Your task to perform on an android device: delete location history Image 0: 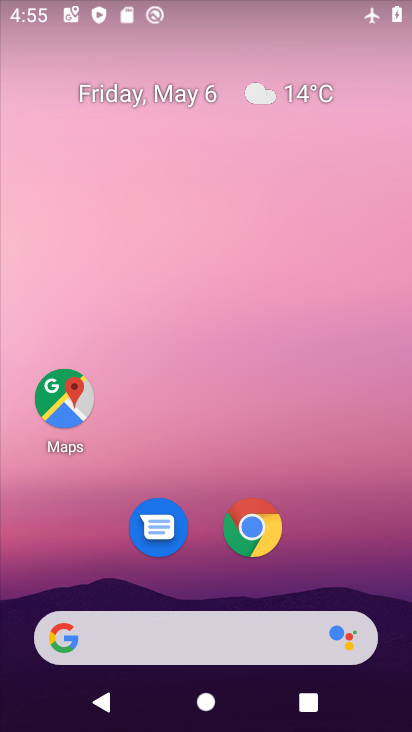
Step 0: drag from (211, 727) to (212, 124)
Your task to perform on an android device: delete location history Image 1: 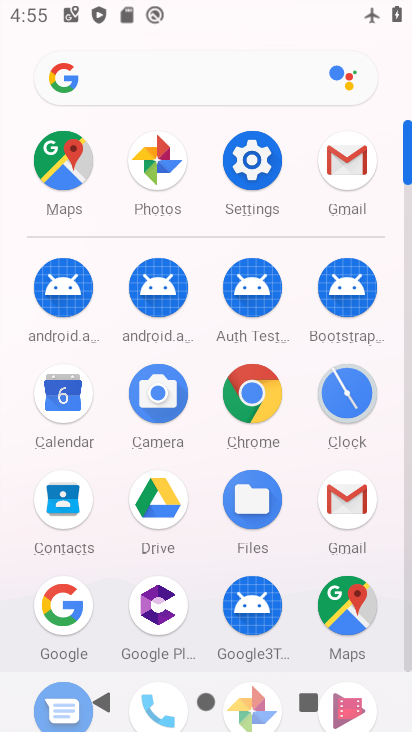
Step 1: click (342, 594)
Your task to perform on an android device: delete location history Image 2: 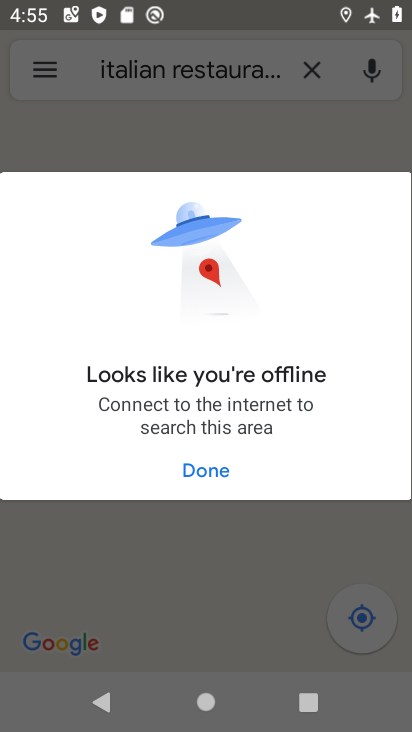
Step 2: click (207, 467)
Your task to perform on an android device: delete location history Image 3: 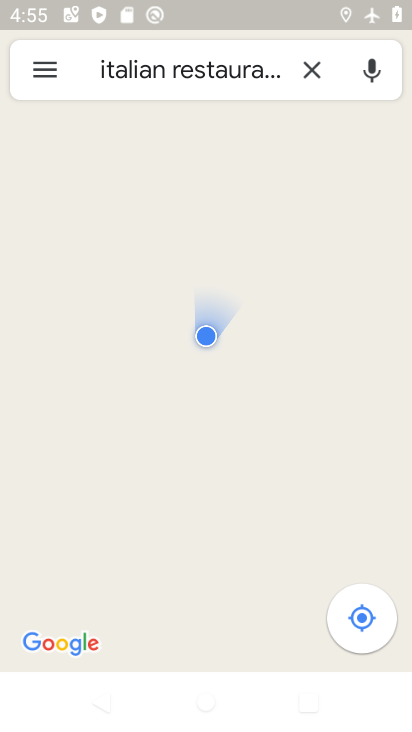
Step 3: click (47, 69)
Your task to perform on an android device: delete location history Image 4: 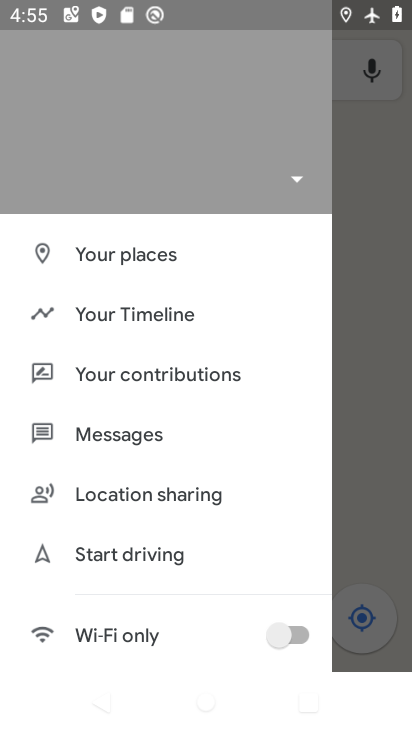
Step 4: click (135, 308)
Your task to perform on an android device: delete location history Image 5: 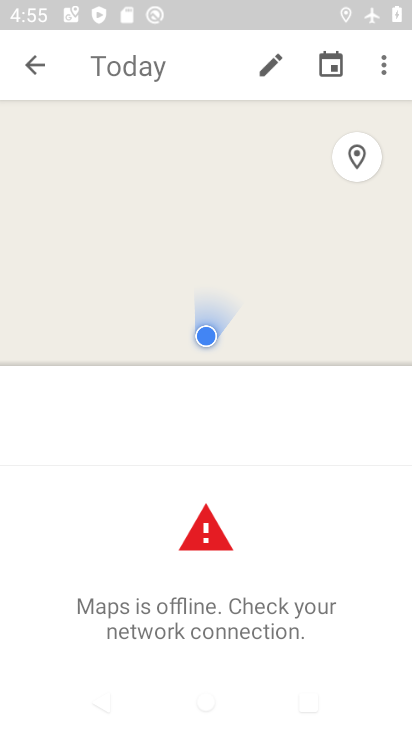
Step 5: click (383, 64)
Your task to perform on an android device: delete location history Image 6: 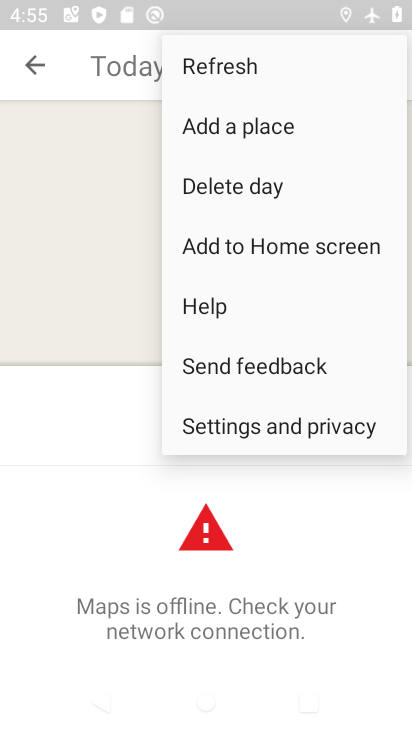
Step 6: click (243, 421)
Your task to perform on an android device: delete location history Image 7: 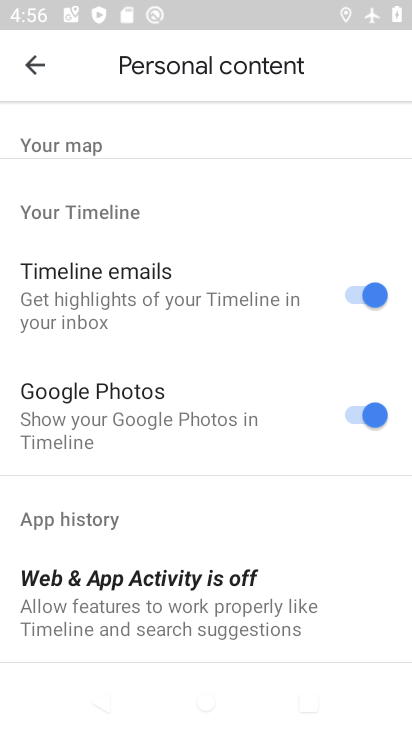
Step 7: drag from (165, 612) to (160, 239)
Your task to perform on an android device: delete location history Image 8: 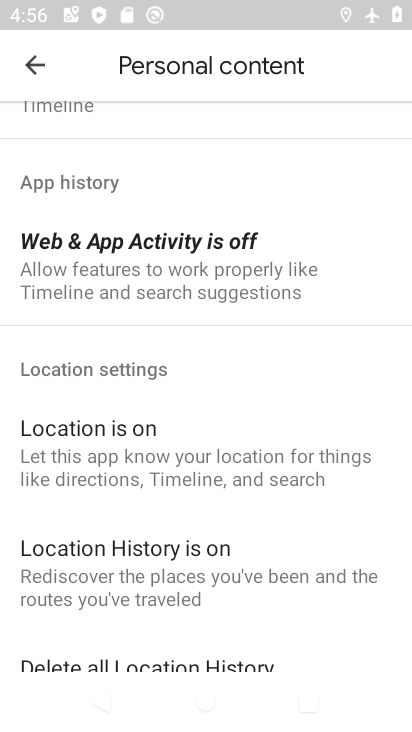
Step 8: drag from (161, 618) to (146, 381)
Your task to perform on an android device: delete location history Image 9: 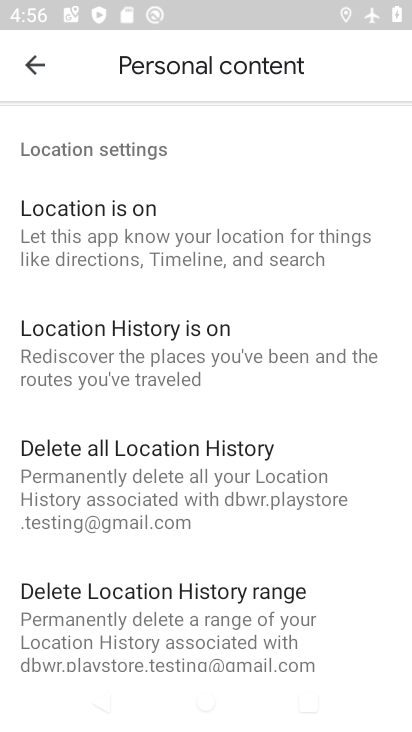
Step 9: click (141, 469)
Your task to perform on an android device: delete location history Image 10: 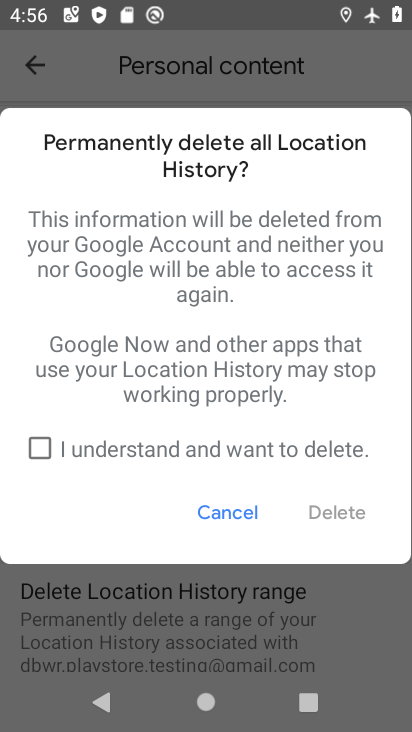
Step 10: click (43, 444)
Your task to perform on an android device: delete location history Image 11: 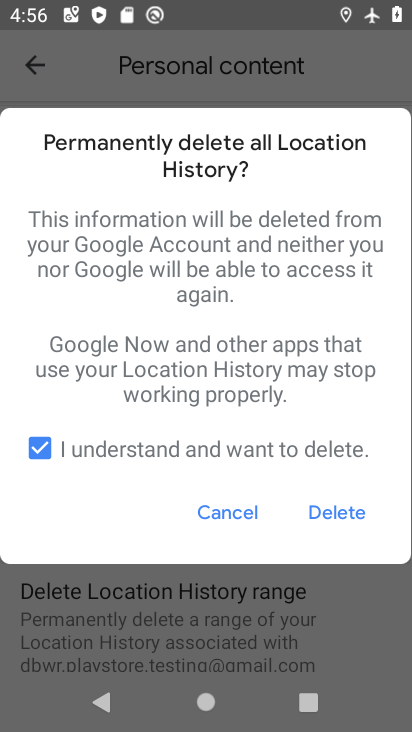
Step 11: click (345, 505)
Your task to perform on an android device: delete location history Image 12: 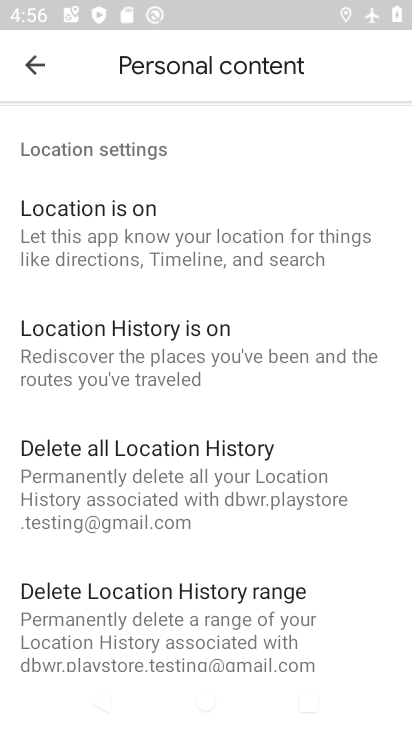
Step 12: task complete